Your task to perform on an android device: Show me productivity apps on the Play Store Image 0: 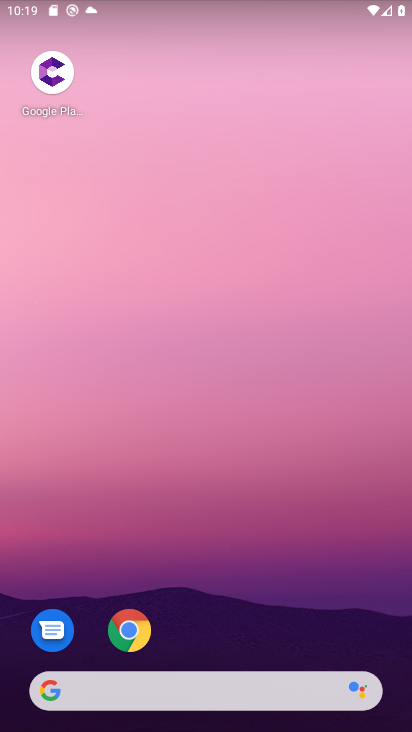
Step 0: drag from (207, 659) to (289, 26)
Your task to perform on an android device: Show me productivity apps on the Play Store Image 1: 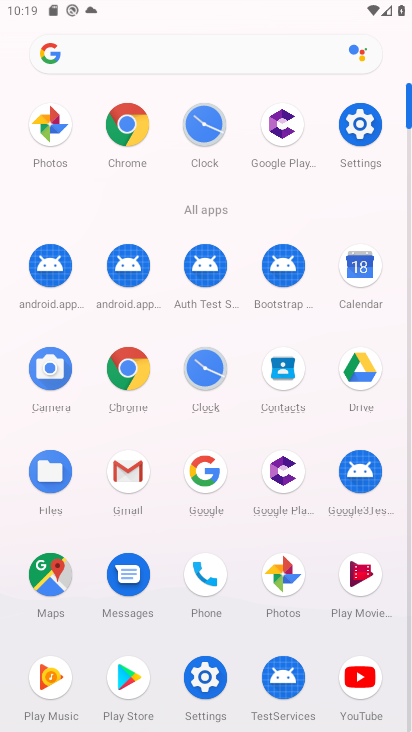
Step 1: click (125, 687)
Your task to perform on an android device: Show me productivity apps on the Play Store Image 2: 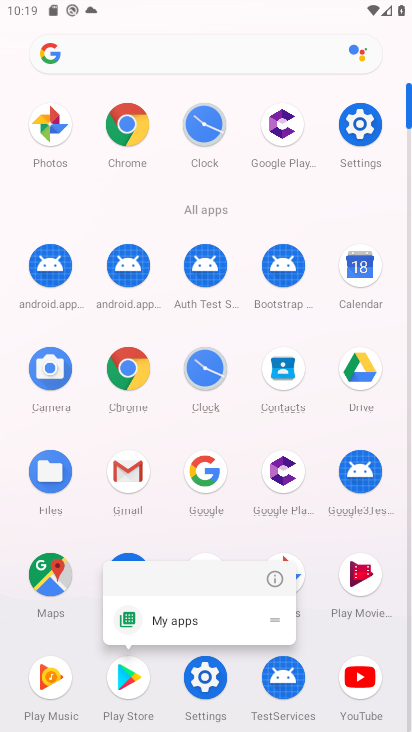
Step 2: click (125, 680)
Your task to perform on an android device: Show me productivity apps on the Play Store Image 3: 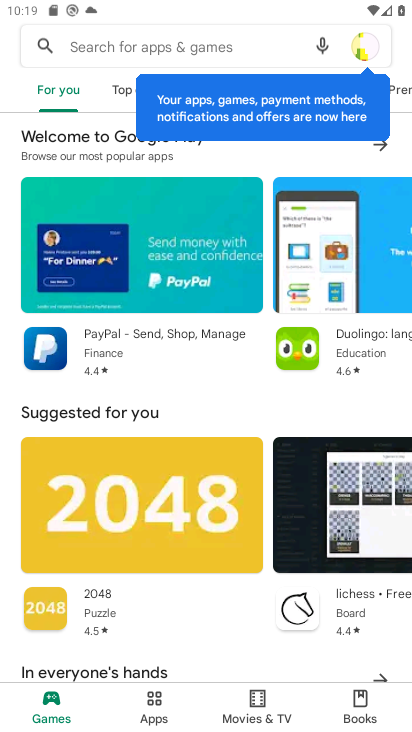
Step 3: drag from (221, 612) to (180, 87)
Your task to perform on an android device: Show me productivity apps on the Play Store Image 4: 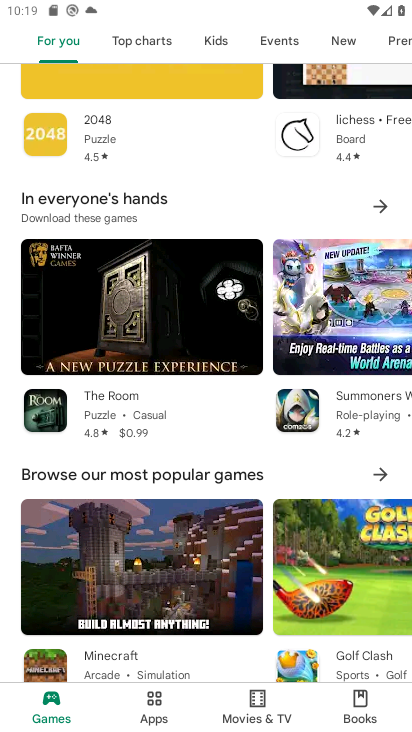
Step 4: drag from (196, 628) to (159, 112)
Your task to perform on an android device: Show me productivity apps on the Play Store Image 5: 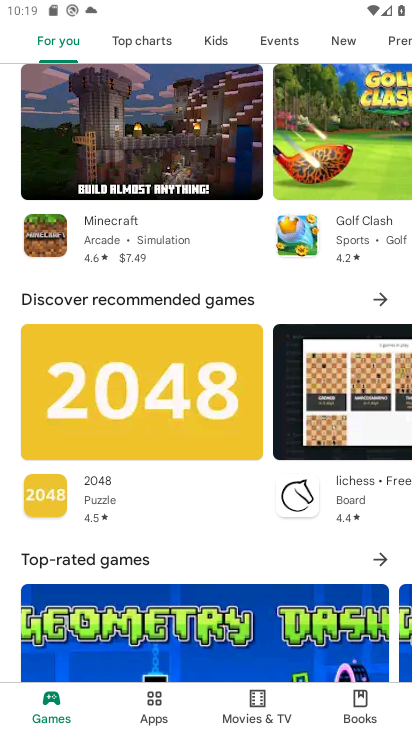
Step 5: drag from (176, 553) to (176, 82)
Your task to perform on an android device: Show me productivity apps on the Play Store Image 6: 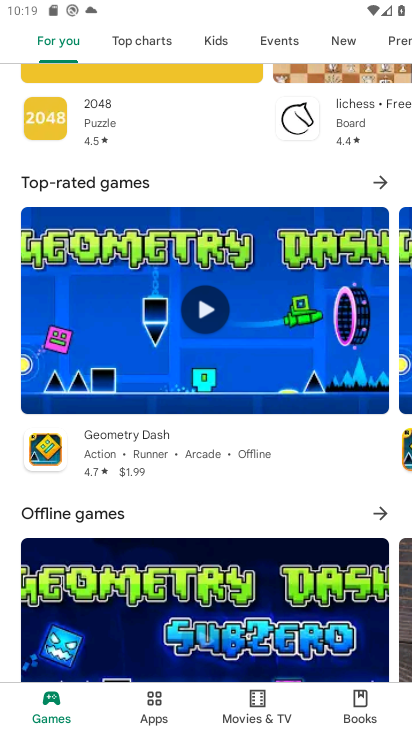
Step 6: drag from (203, 559) to (165, 97)
Your task to perform on an android device: Show me productivity apps on the Play Store Image 7: 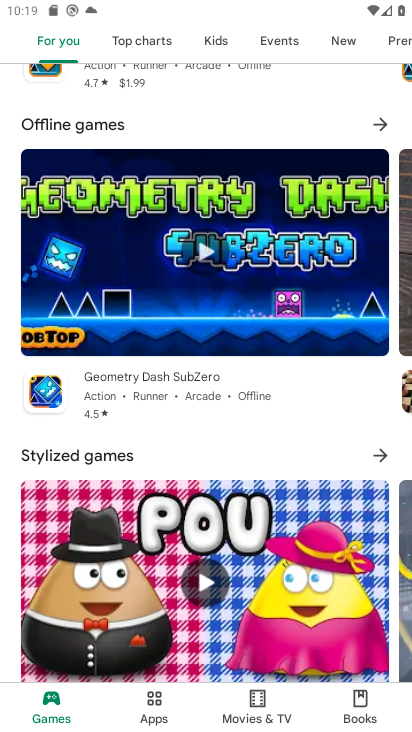
Step 7: drag from (150, 536) to (150, 0)
Your task to perform on an android device: Show me productivity apps on the Play Store Image 8: 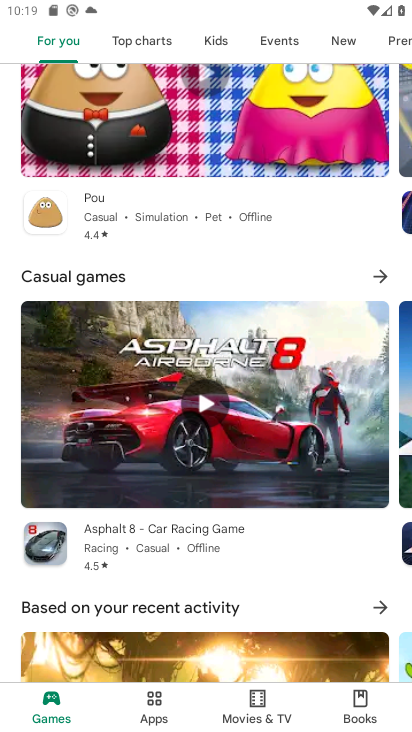
Step 8: drag from (154, 516) to (137, 20)
Your task to perform on an android device: Show me productivity apps on the Play Store Image 9: 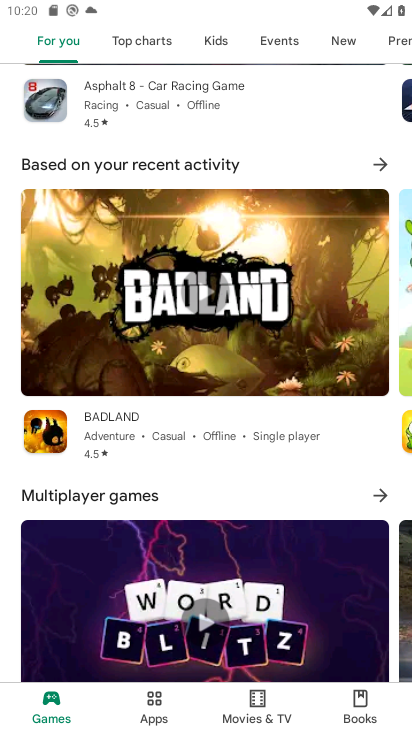
Step 9: drag from (165, 572) to (164, 172)
Your task to perform on an android device: Show me productivity apps on the Play Store Image 10: 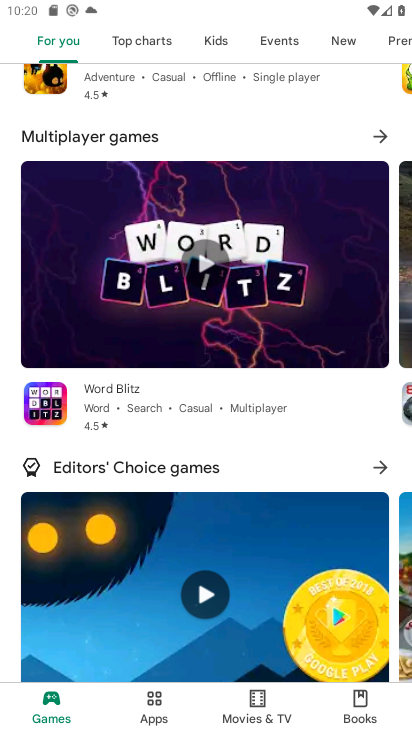
Step 10: drag from (209, 540) to (182, 96)
Your task to perform on an android device: Show me productivity apps on the Play Store Image 11: 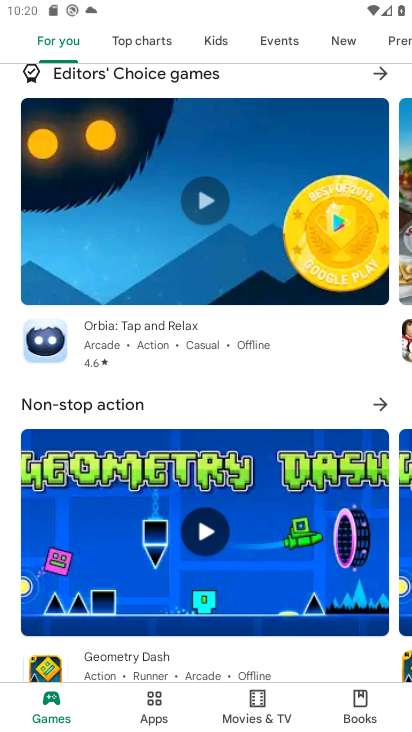
Step 11: click (150, 696)
Your task to perform on an android device: Show me productivity apps on the Play Store Image 12: 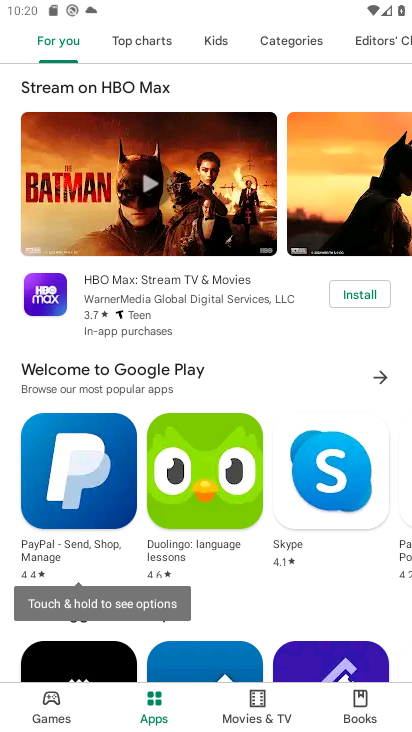
Step 12: task complete